Your task to perform on an android device: What is the news today? Image 0: 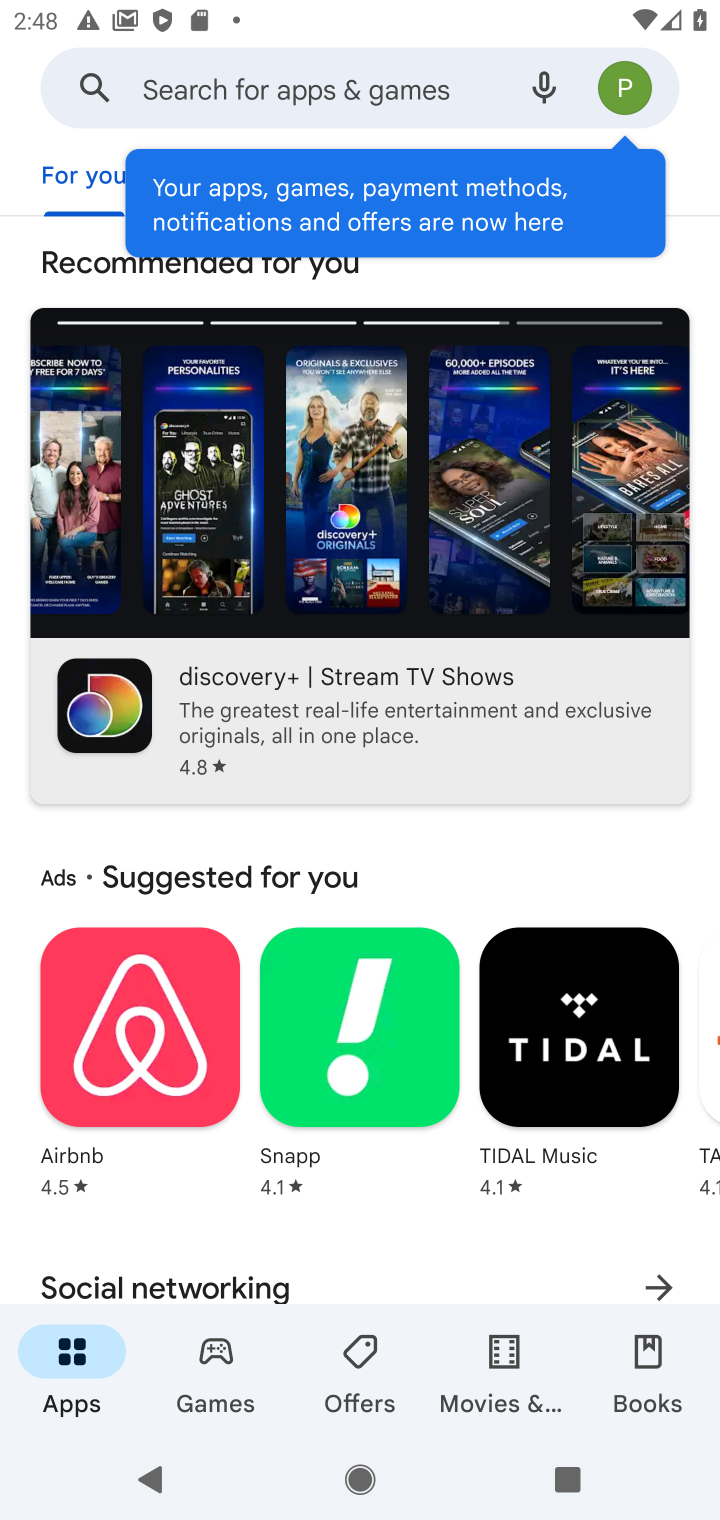
Step 0: press home button
Your task to perform on an android device: What is the news today? Image 1: 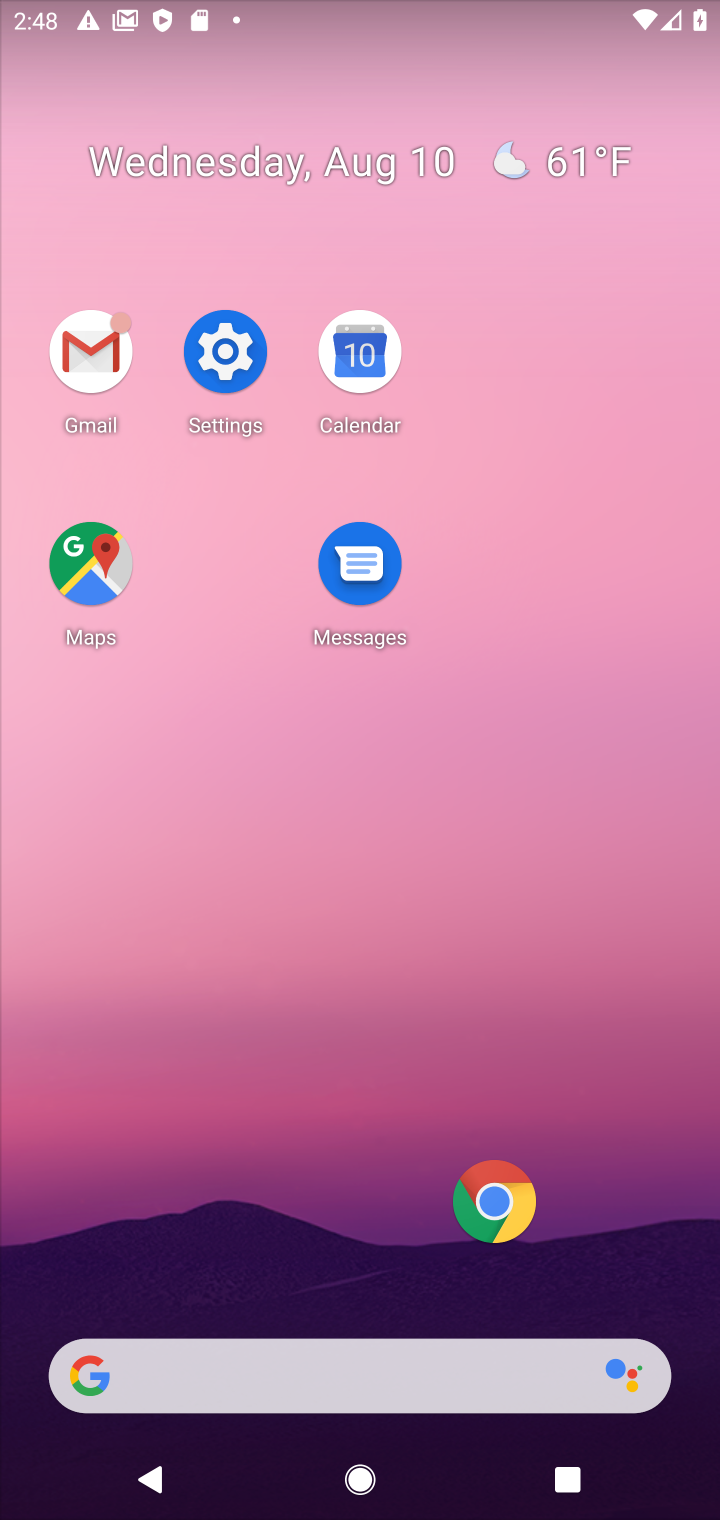
Step 1: drag from (240, 883) to (280, 249)
Your task to perform on an android device: What is the news today? Image 2: 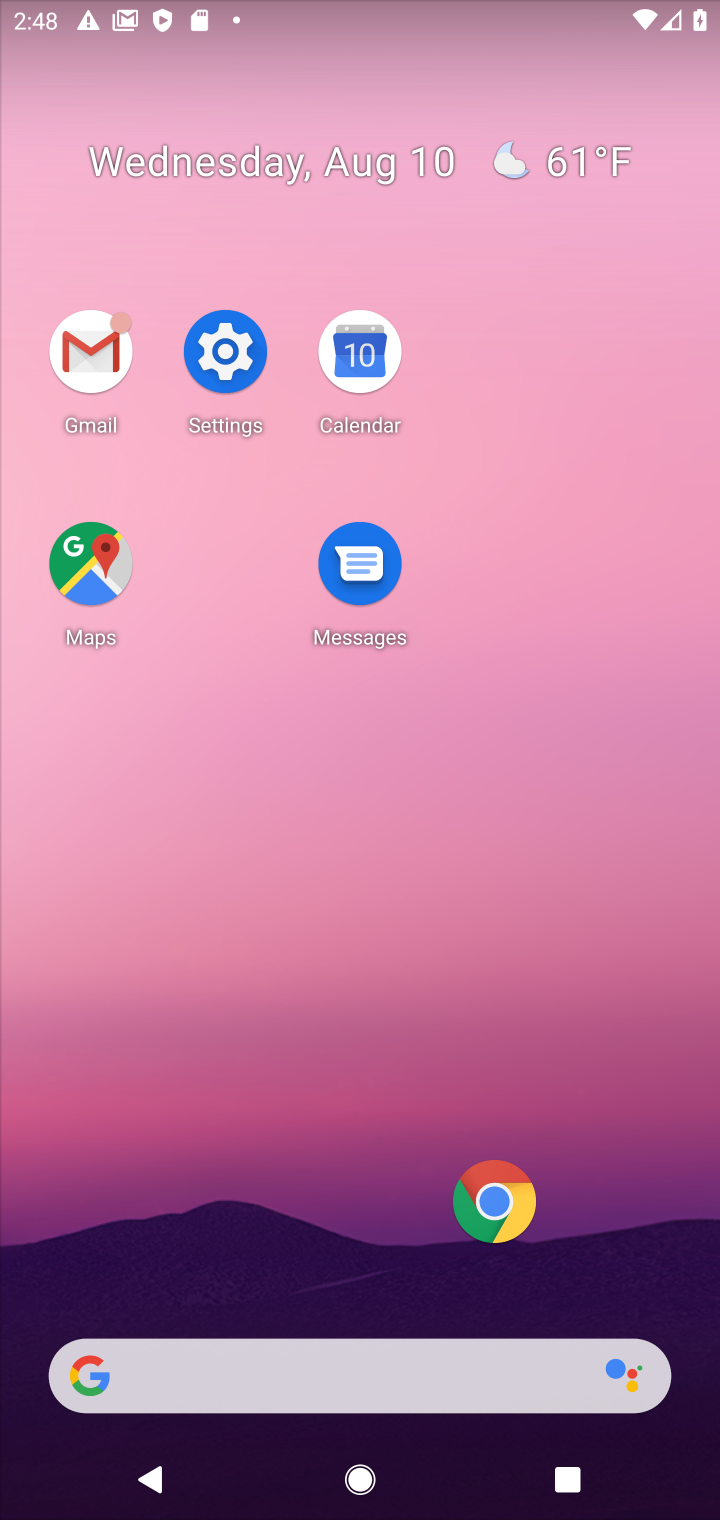
Step 2: drag from (171, 1242) to (319, 311)
Your task to perform on an android device: What is the news today? Image 3: 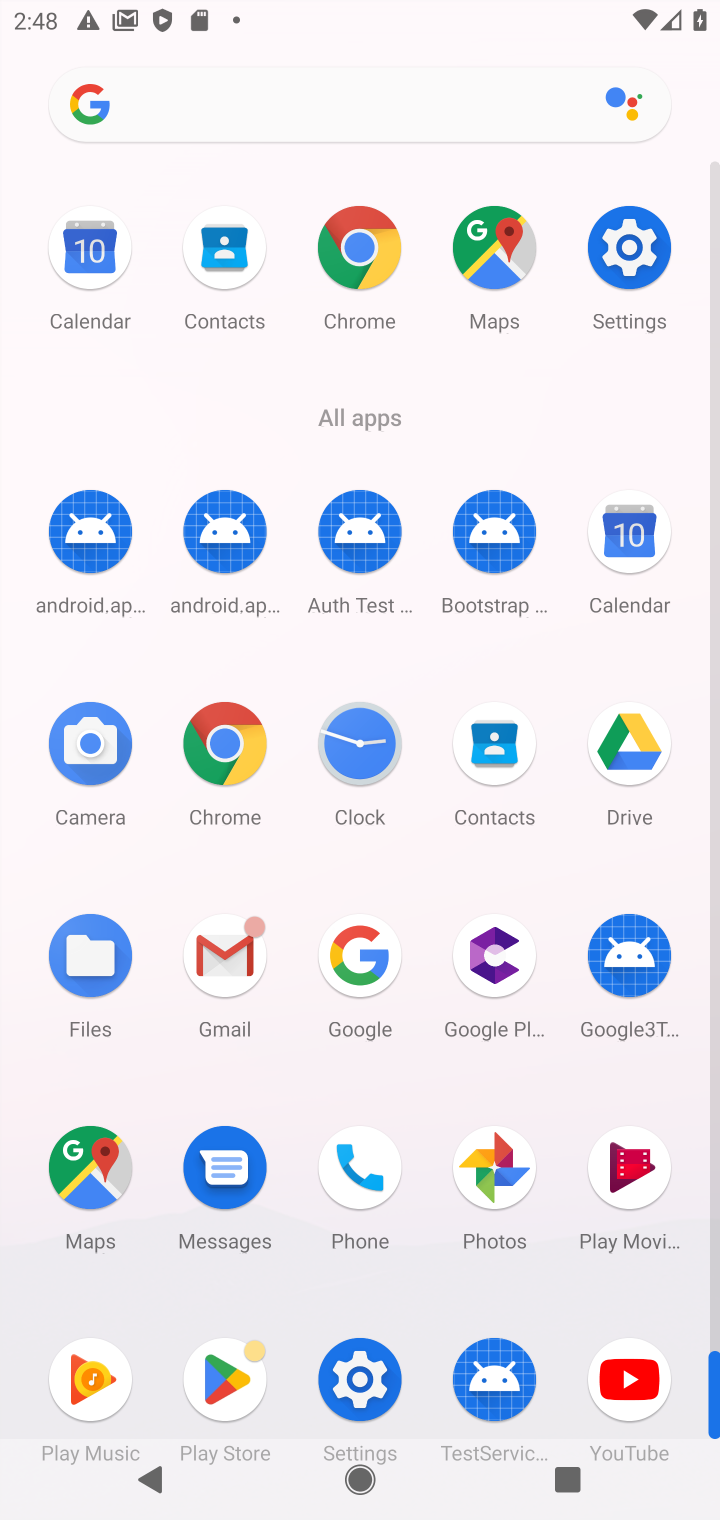
Step 3: drag from (349, 965) to (208, 811)
Your task to perform on an android device: What is the news today? Image 4: 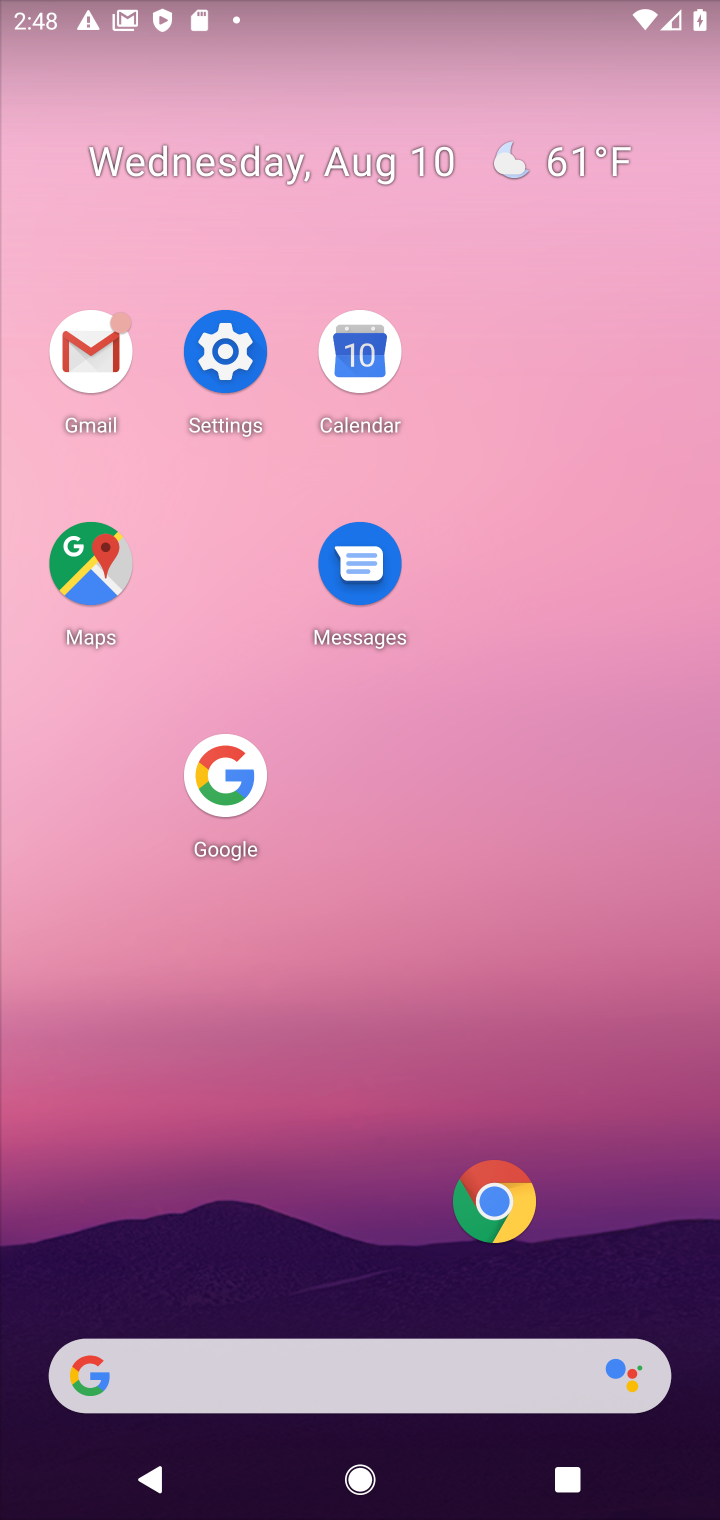
Step 4: click (209, 772)
Your task to perform on an android device: What is the news today? Image 5: 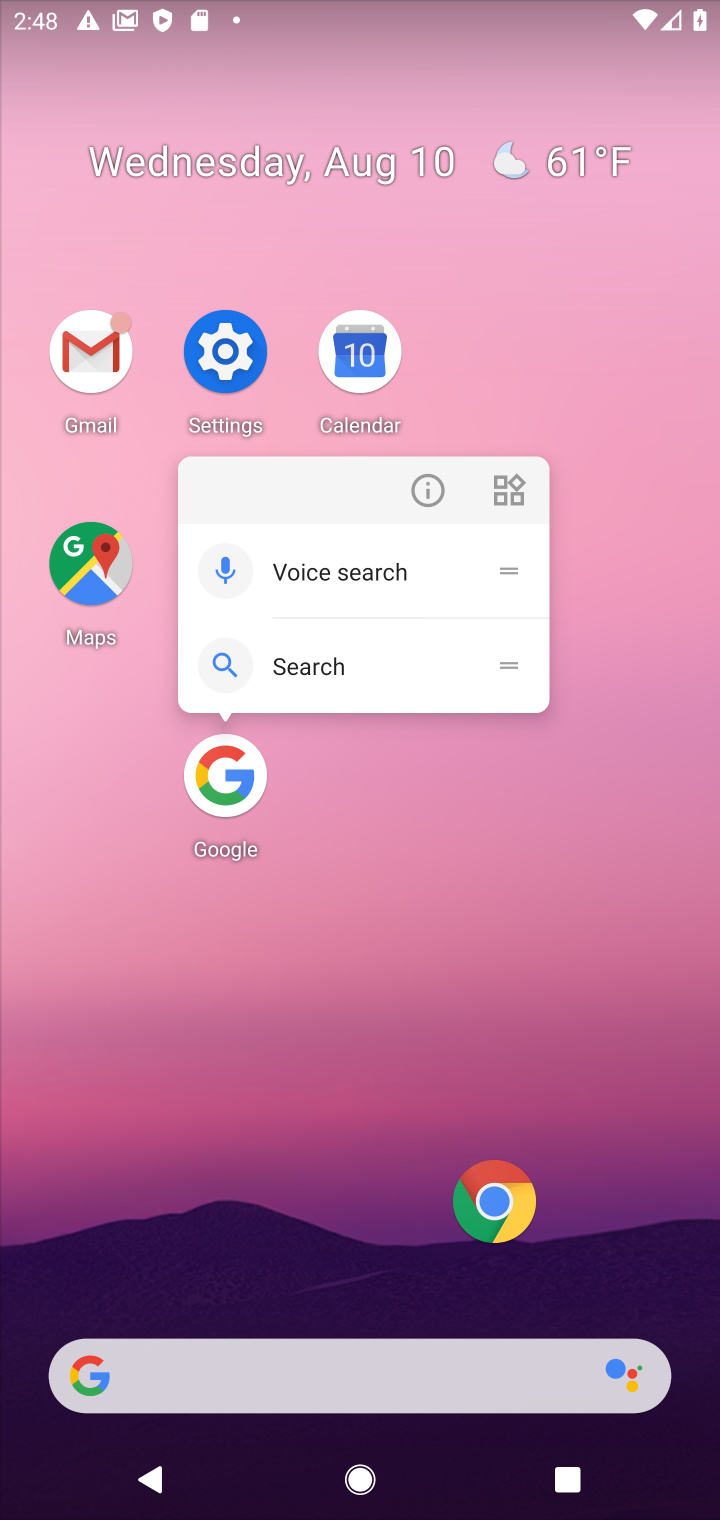
Step 5: click (228, 765)
Your task to perform on an android device: What is the news today? Image 6: 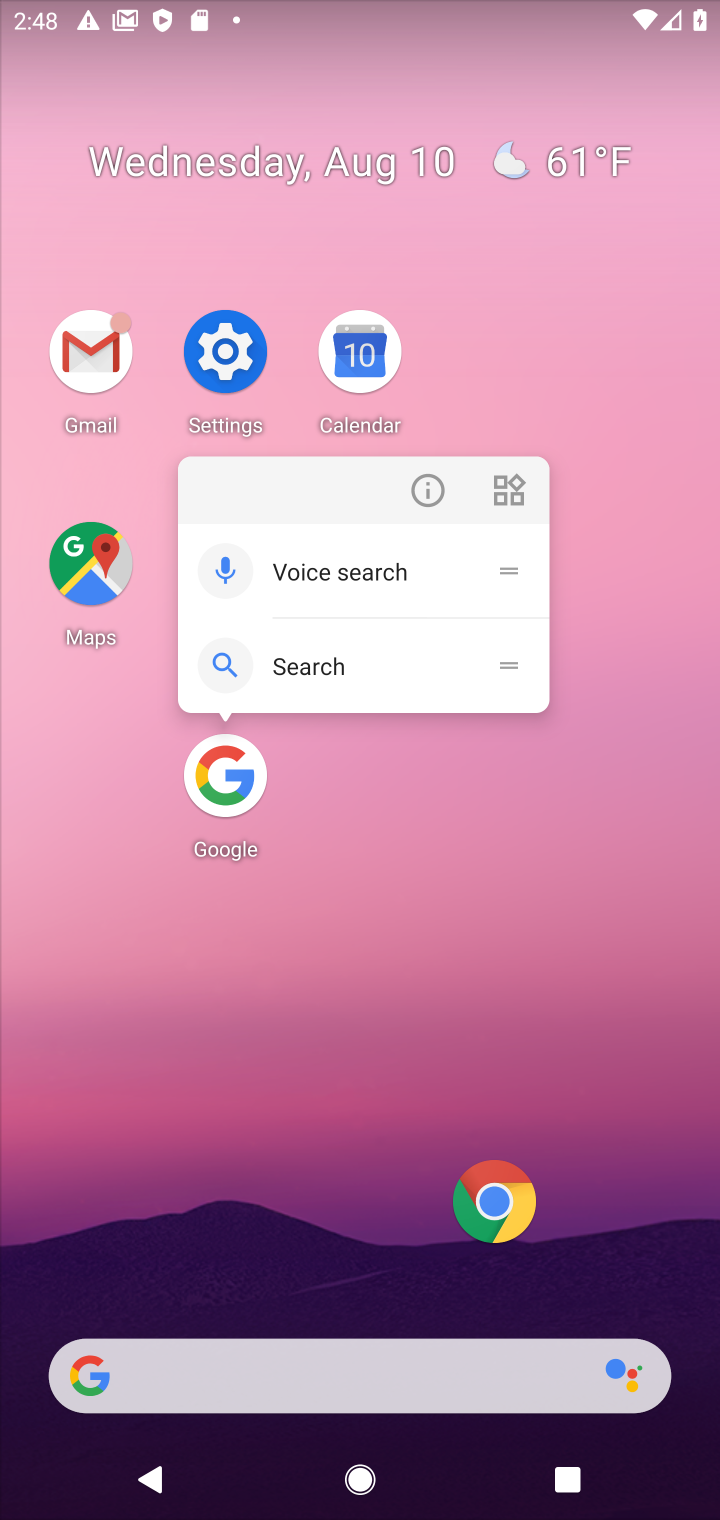
Step 6: click (234, 765)
Your task to perform on an android device: What is the news today? Image 7: 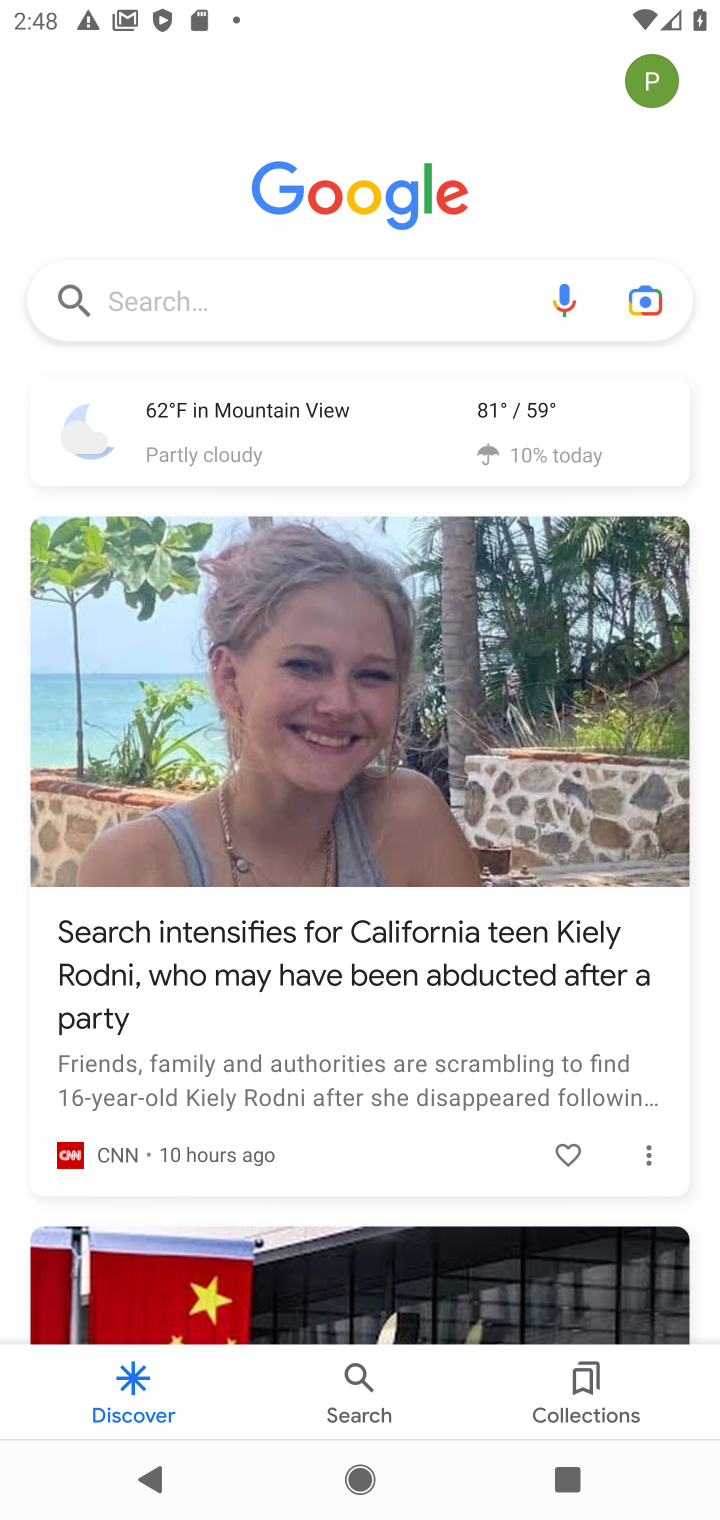
Step 7: click (317, 286)
Your task to perform on an android device: What is the news today? Image 8: 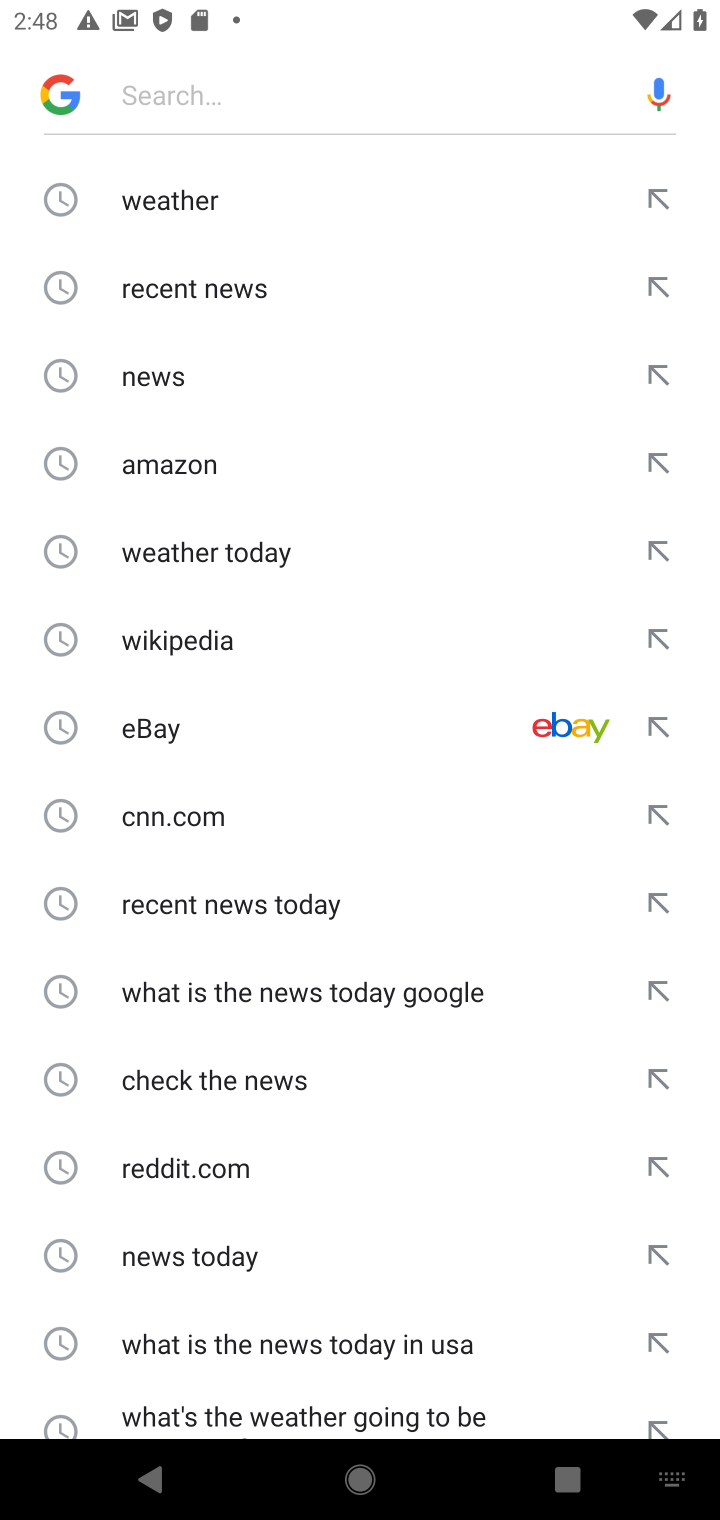
Step 8: click (207, 368)
Your task to perform on an android device: What is the news today? Image 9: 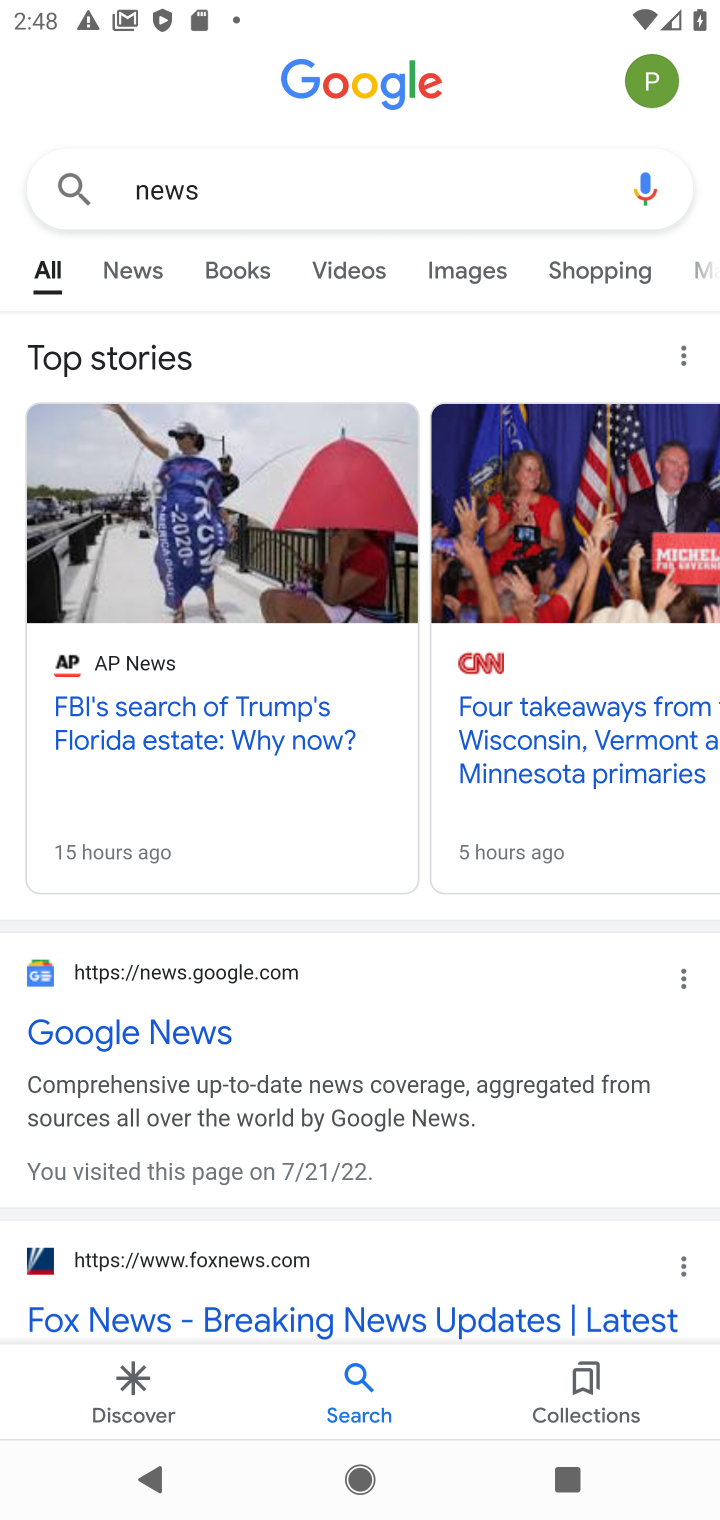
Step 9: task complete